Your task to perform on an android device: Go to wifi settings Image 0: 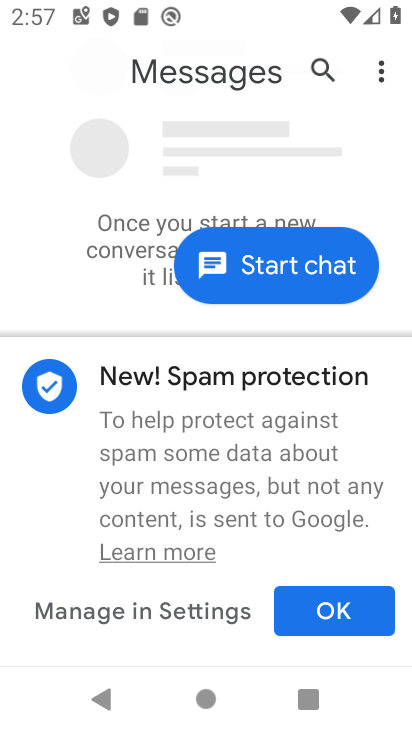
Step 0: press home button
Your task to perform on an android device: Go to wifi settings Image 1: 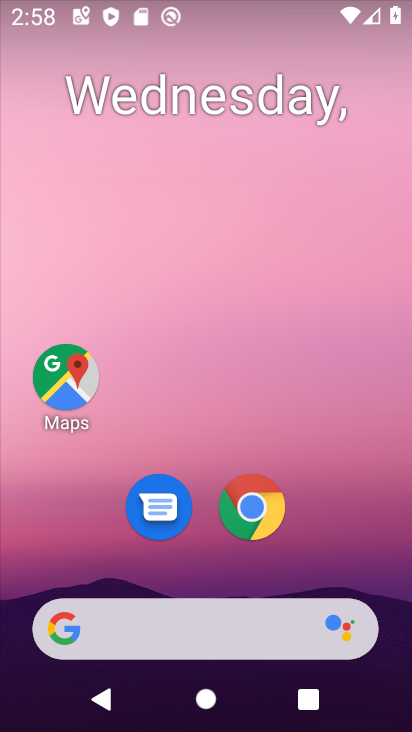
Step 1: click (252, 504)
Your task to perform on an android device: Go to wifi settings Image 2: 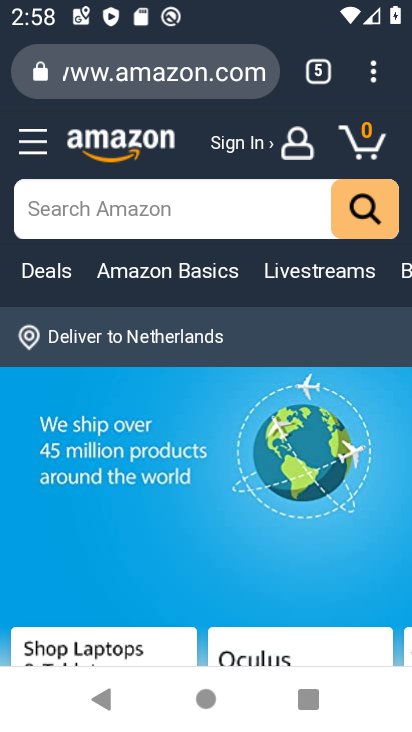
Step 2: press home button
Your task to perform on an android device: Go to wifi settings Image 3: 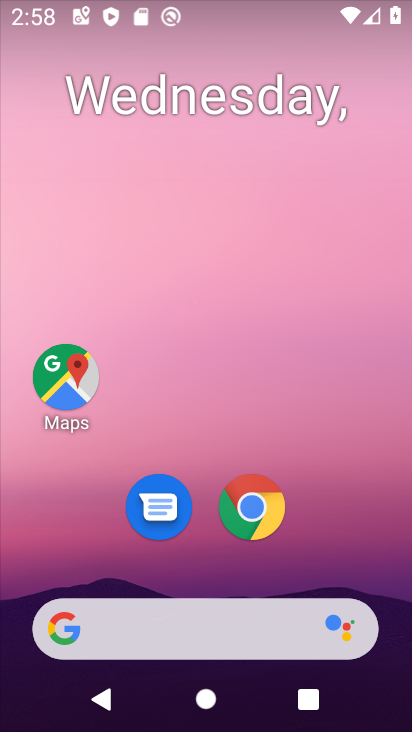
Step 3: drag from (348, 510) to (304, 9)
Your task to perform on an android device: Go to wifi settings Image 4: 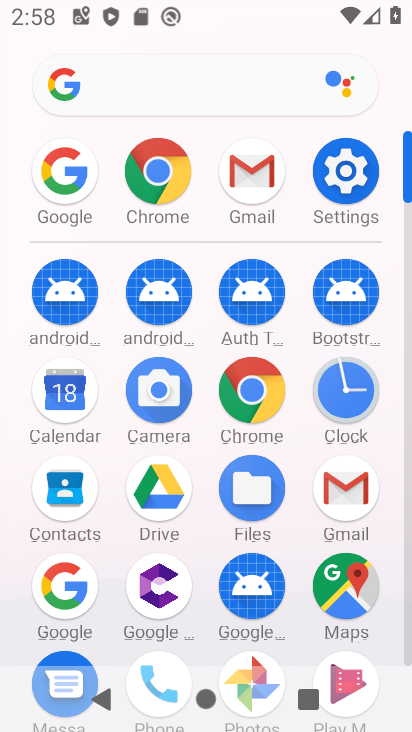
Step 4: click (341, 180)
Your task to perform on an android device: Go to wifi settings Image 5: 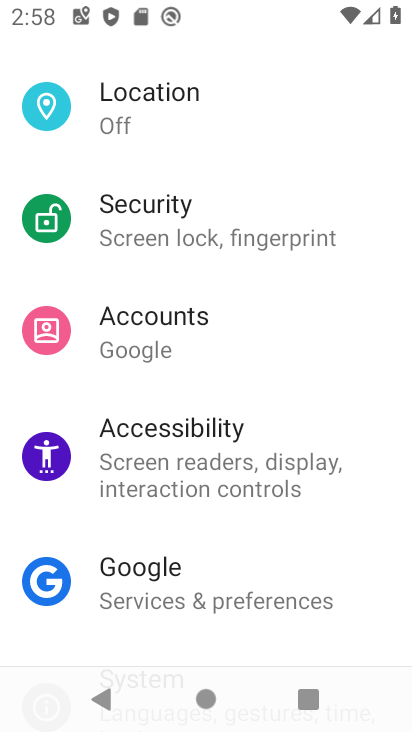
Step 5: drag from (257, 140) to (289, 473)
Your task to perform on an android device: Go to wifi settings Image 6: 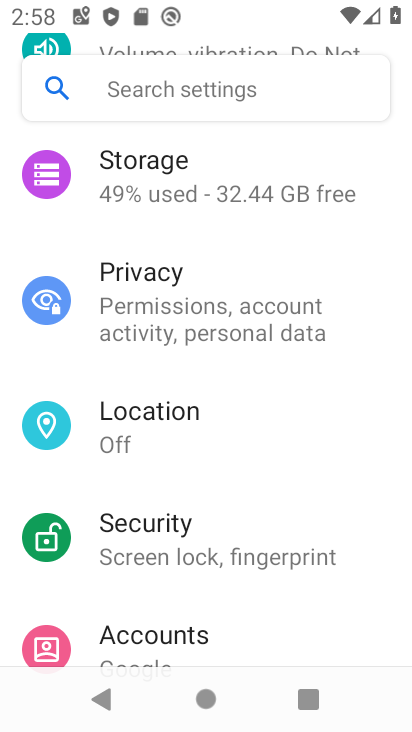
Step 6: drag from (266, 228) to (292, 605)
Your task to perform on an android device: Go to wifi settings Image 7: 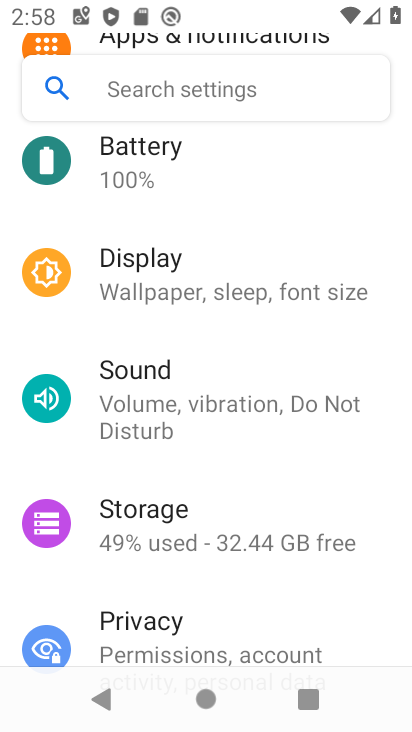
Step 7: drag from (270, 203) to (301, 680)
Your task to perform on an android device: Go to wifi settings Image 8: 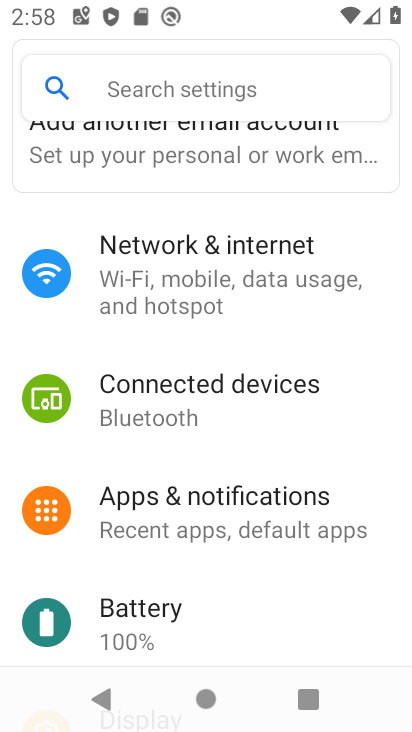
Step 8: click (260, 277)
Your task to perform on an android device: Go to wifi settings Image 9: 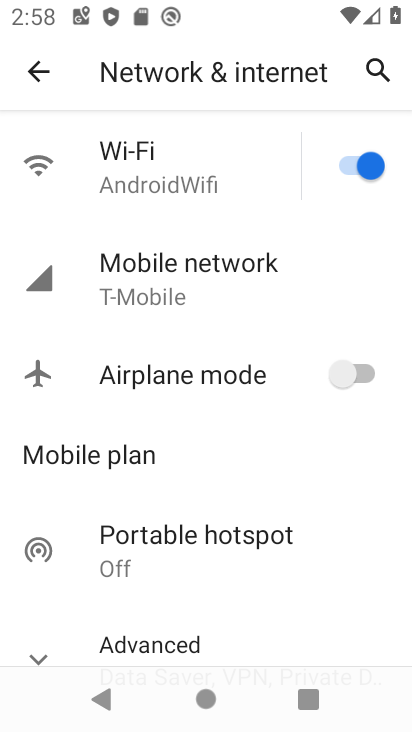
Step 9: task complete